Your task to perform on an android device: change the clock display to analog Image 0: 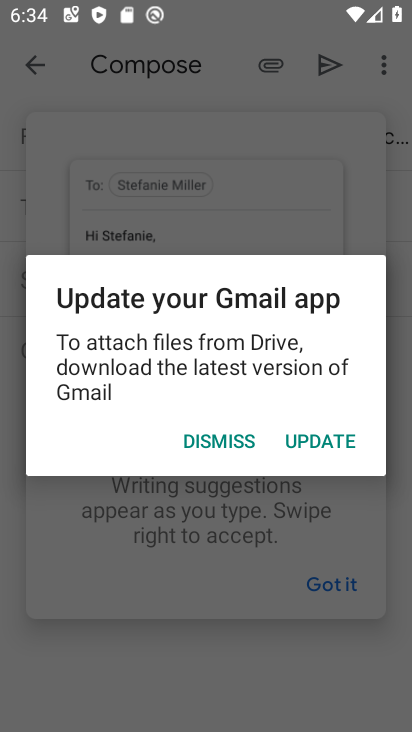
Step 0: press back button
Your task to perform on an android device: change the clock display to analog Image 1: 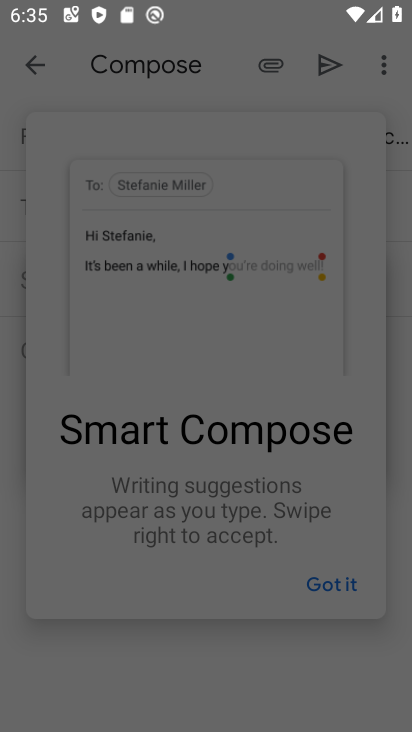
Step 1: press home button
Your task to perform on an android device: change the clock display to analog Image 2: 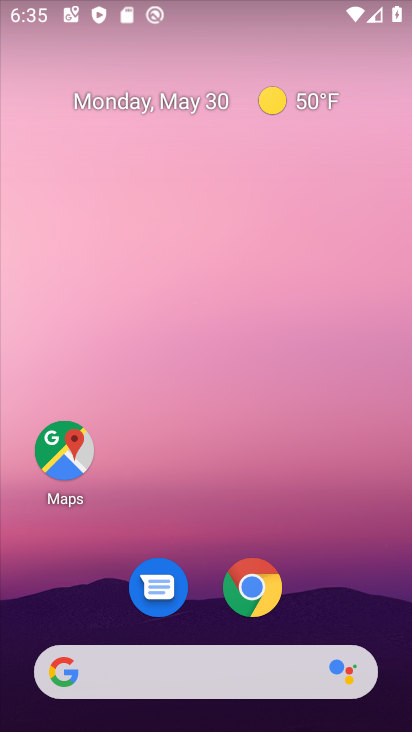
Step 2: drag from (349, 554) to (270, 35)
Your task to perform on an android device: change the clock display to analog Image 3: 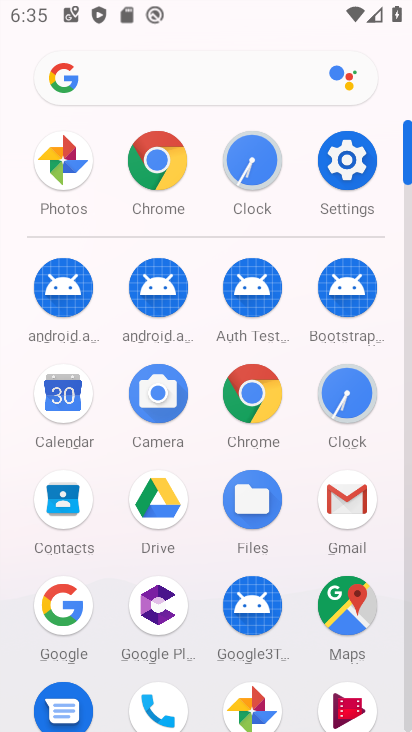
Step 3: click (345, 389)
Your task to perform on an android device: change the clock display to analog Image 4: 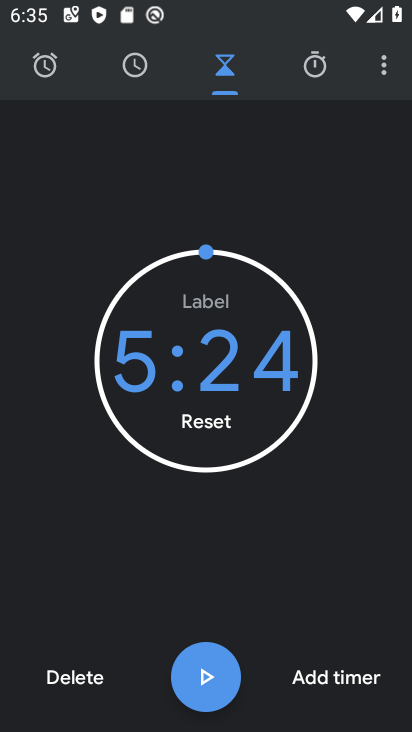
Step 4: task complete